Your task to perform on an android device: toggle airplane mode Image 0: 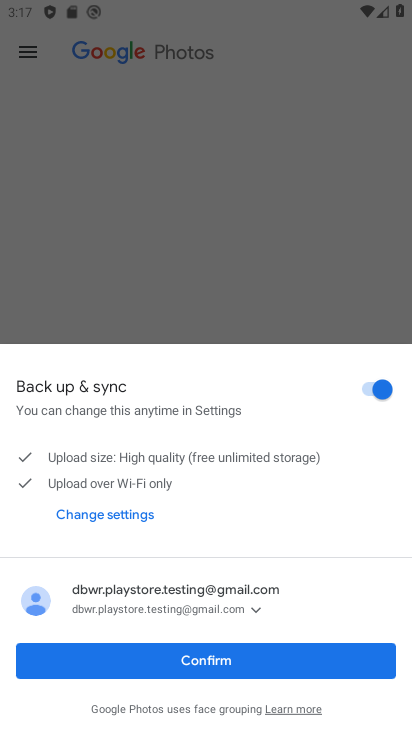
Step 0: press home button
Your task to perform on an android device: toggle airplane mode Image 1: 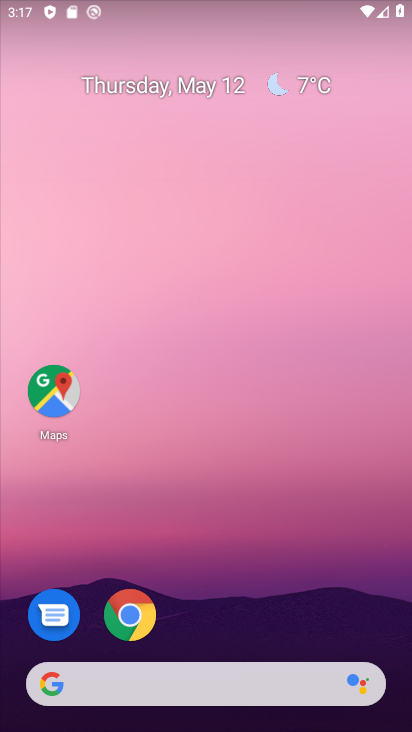
Step 1: drag from (338, 7) to (334, 463)
Your task to perform on an android device: toggle airplane mode Image 2: 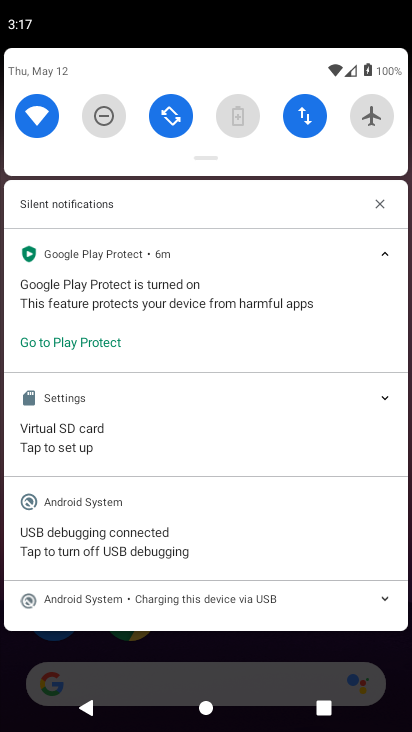
Step 2: click (368, 109)
Your task to perform on an android device: toggle airplane mode Image 3: 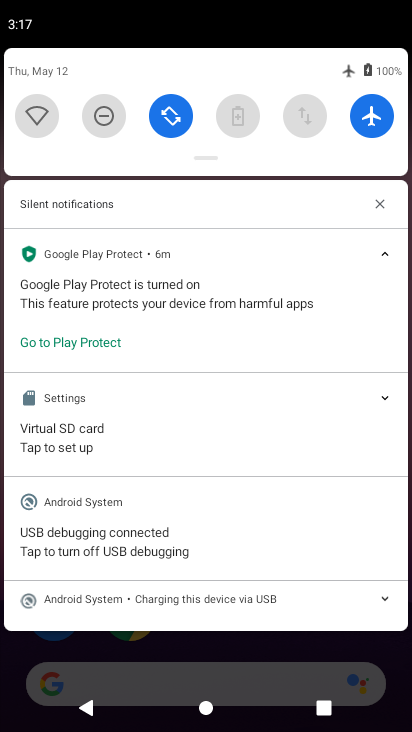
Step 3: task complete